Your task to perform on an android device: add a contact in the contacts app Image 0: 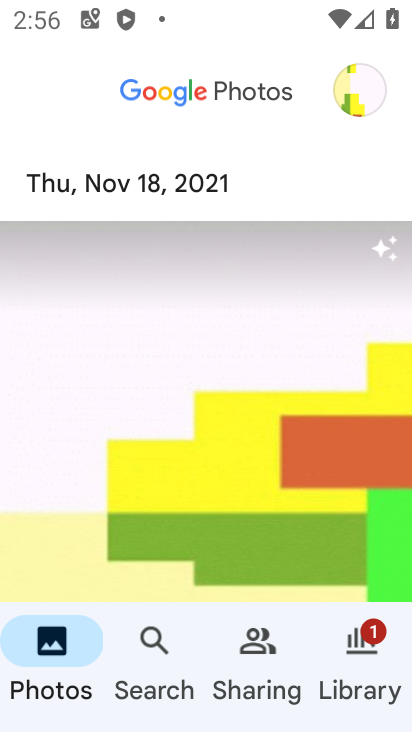
Step 0: press home button
Your task to perform on an android device: add a contact in the contacts app Image 1: 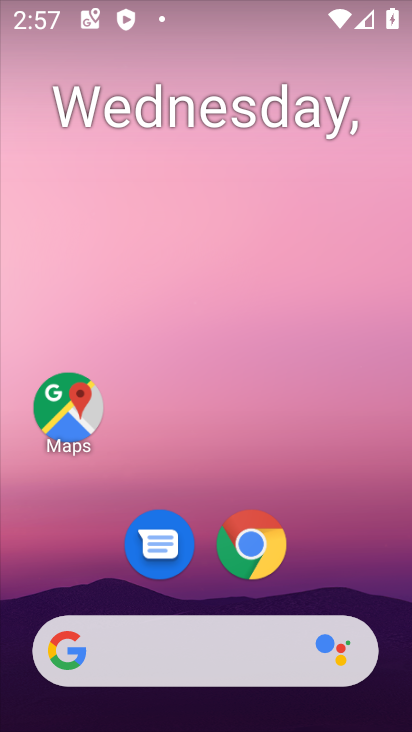
Step 1: drag from (369, 558) to (347, 224)
Your task to perform on an android device: add a contact in the contacts app Image 2: 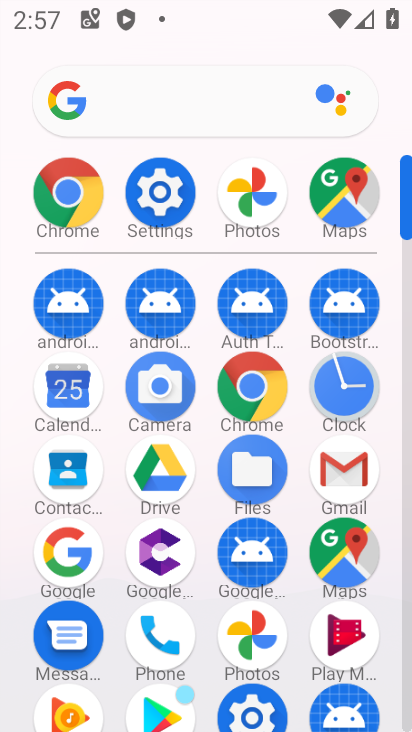
Step 2: click (88, 467)
Your task to perform on an android device: add a contact in the contacts app Image 3: 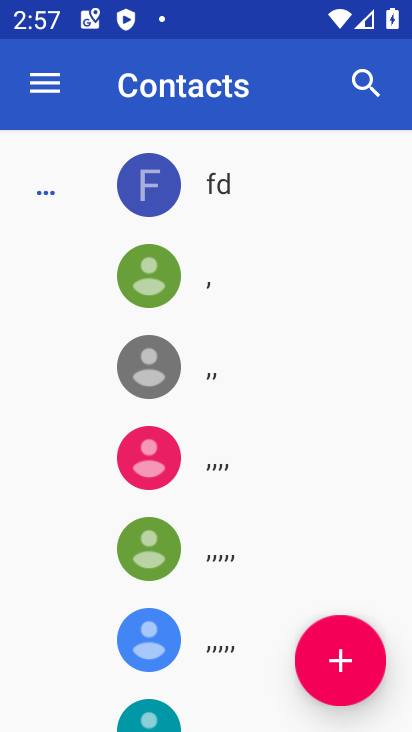
Step 3: click (318, 675)
Your task to perform on an android device: add a contact in the contacts app Image 4: 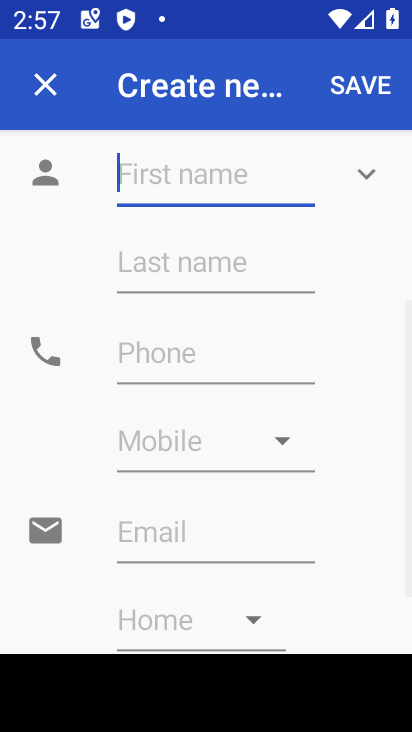
Step 4: click (175, 178)
Your task to perform on an android device: add a contact in the contacts app Image 5: 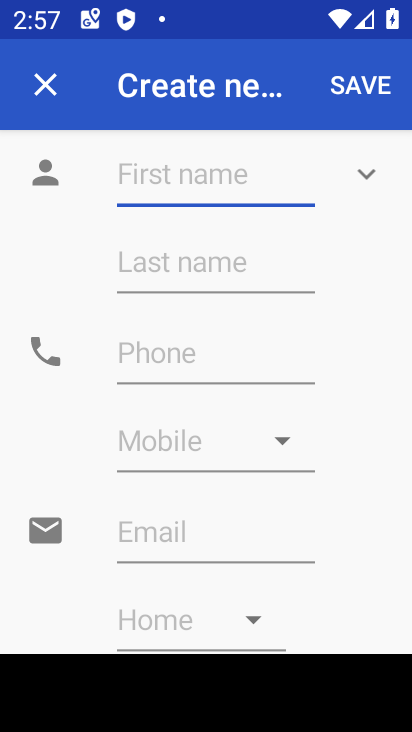
Step 5: type "inmedken"
Your task to perform on an android device: add a contact in the contacts app Image 6: 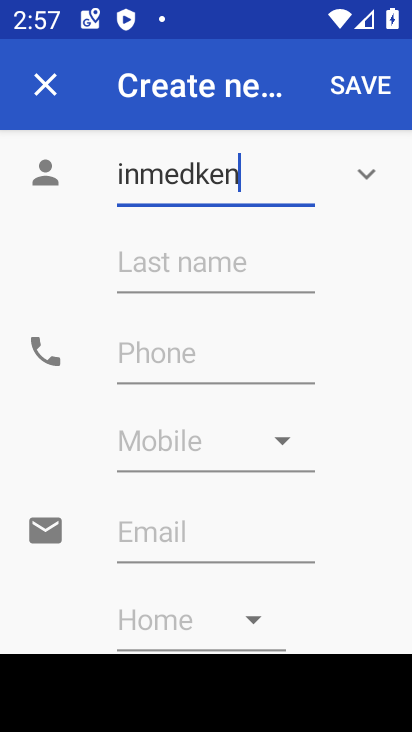
Step 6: click (170, 356)
Your task to perform on an android device: add a contact in the contacts app Image 7: 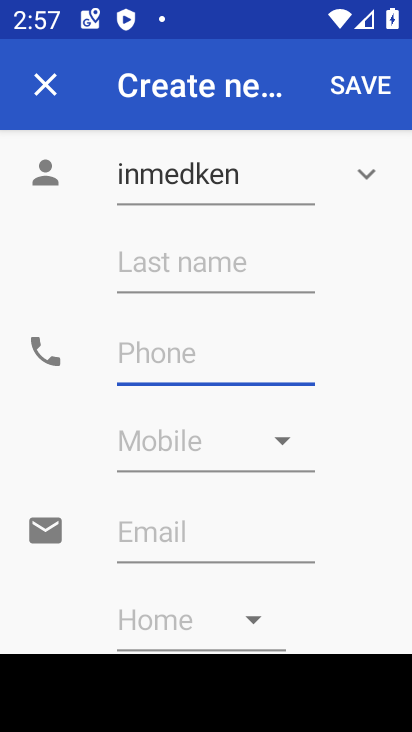
Step 7: type "394987938493"
Your task to perform on an android device: add a contact in the contacts app Image 8: 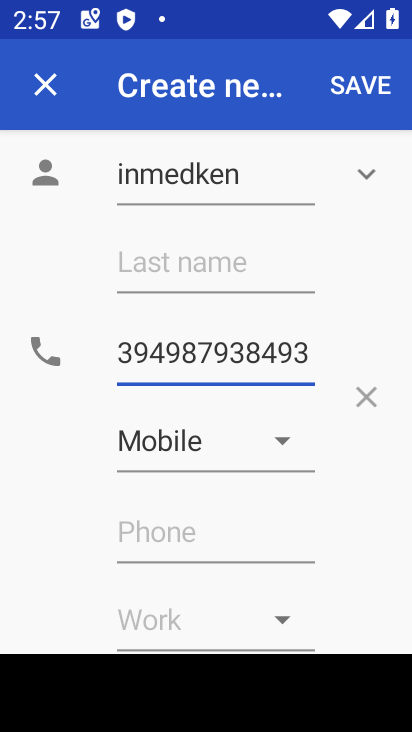
Step 8: click (345, 93)
Your task to perform on an android device: add a contact in the contacts app Image 9: 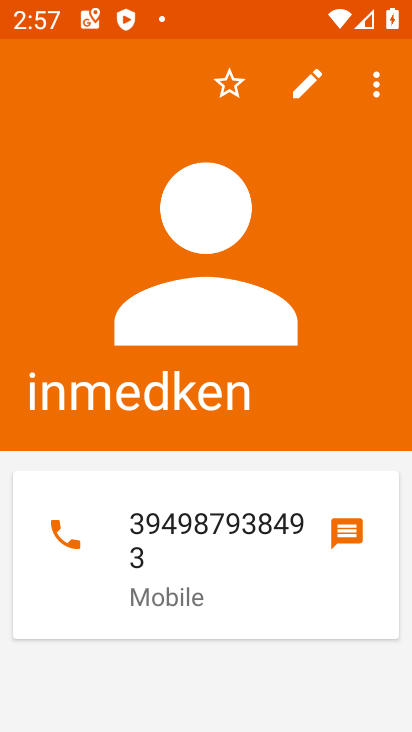
Step 9: task complete